Your task to perform on an android device: check data usage Image 0: 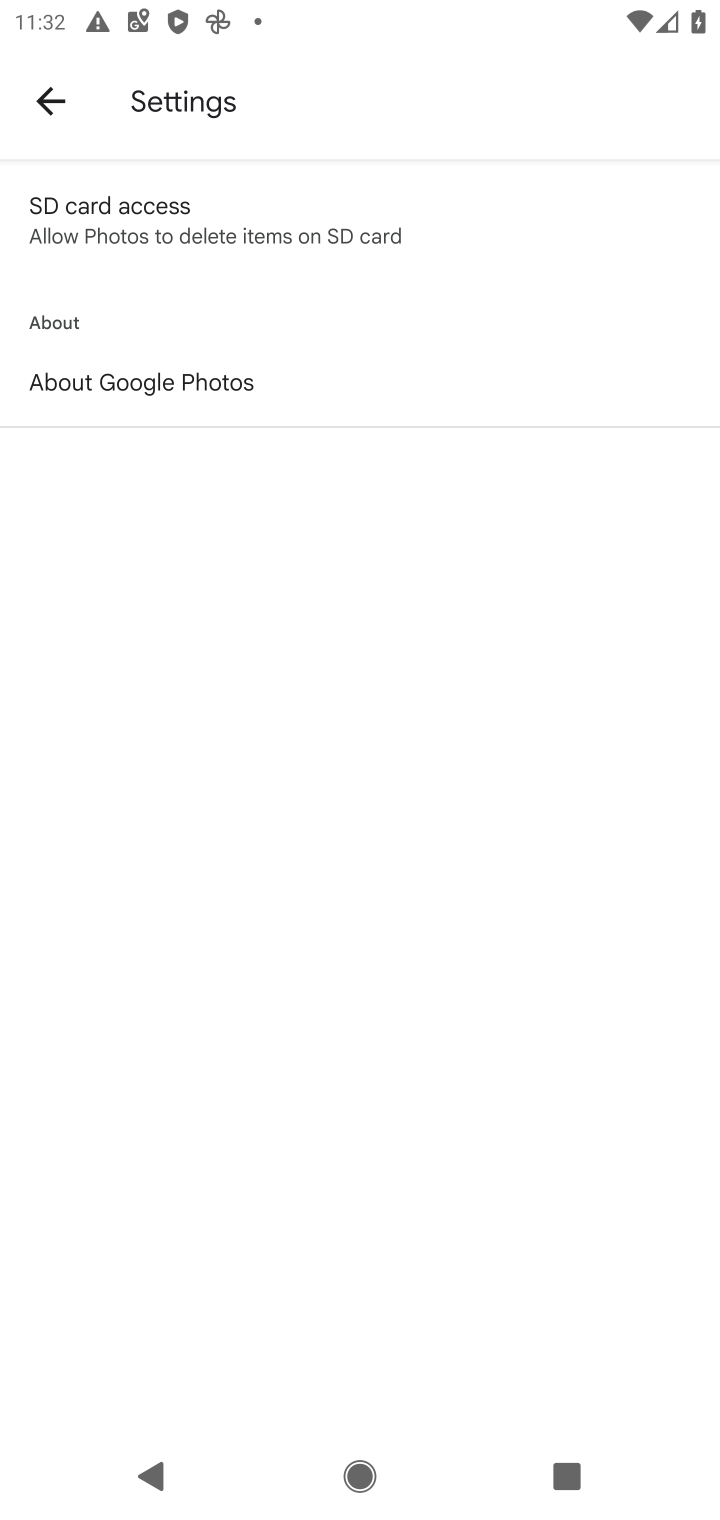
Step 0: press home button
Your task to perform on an android device: check data usage Image 1: 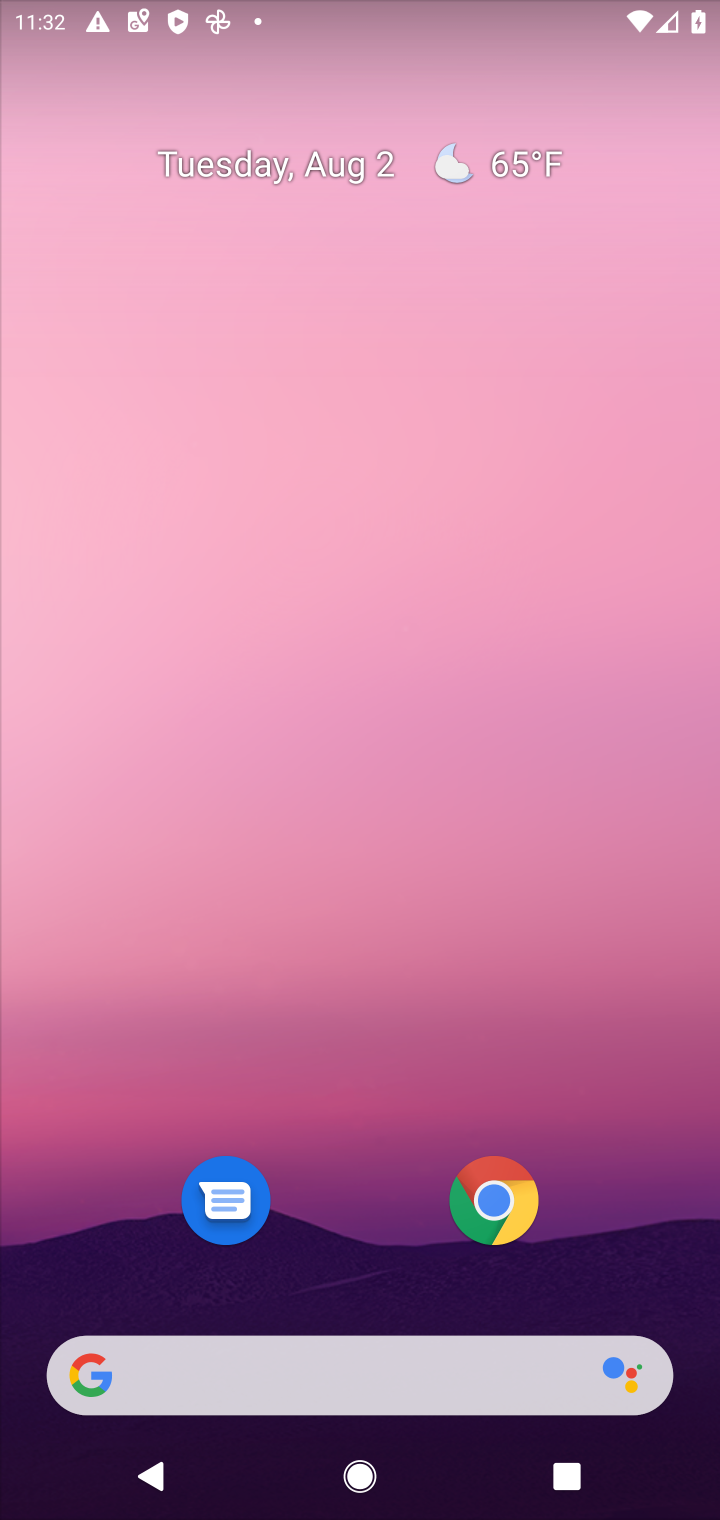
Step 1: drag from (693, 1324) to (570, 380)
Your task to perform on an android device: check data usage Image 2: 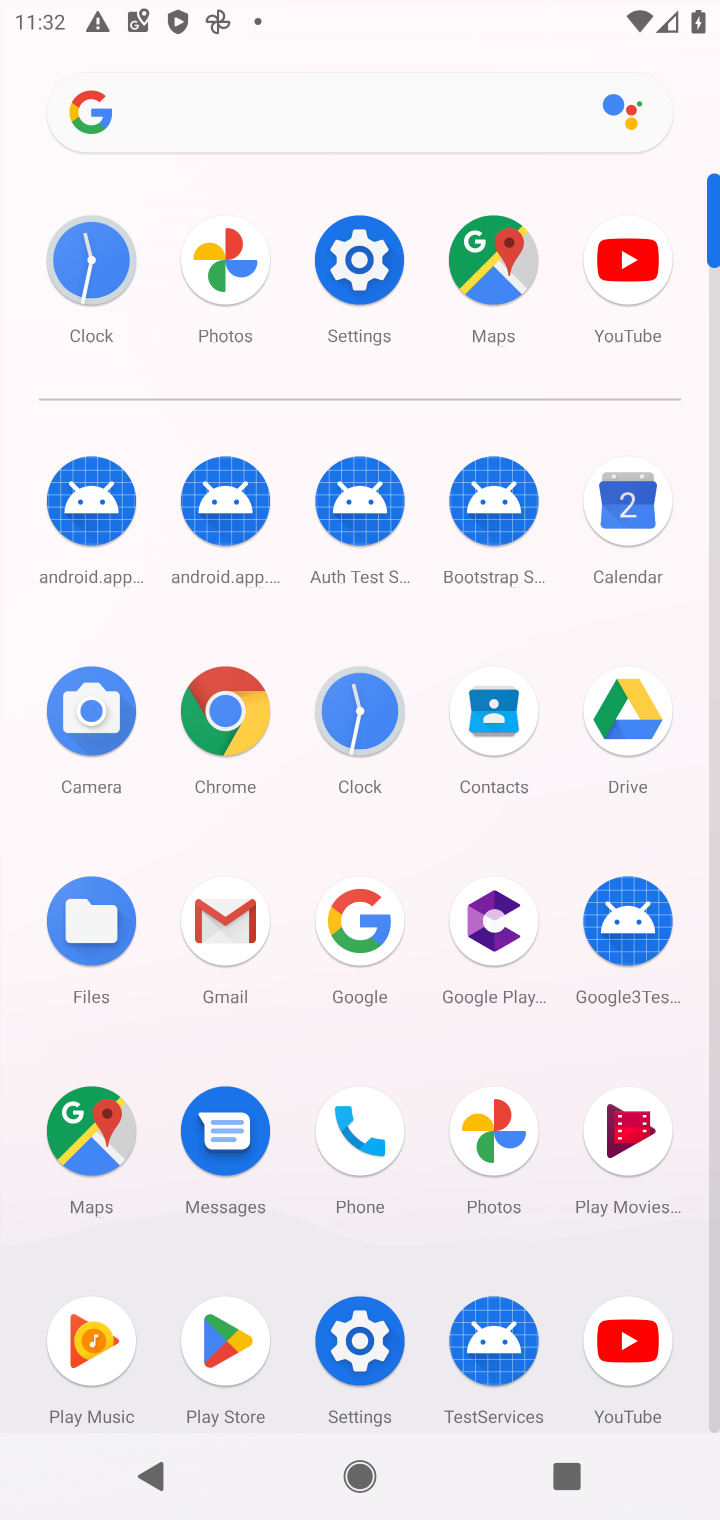
Step 2: click (361, 1341)
Your task to perform on an android device: check data usage Image 3: 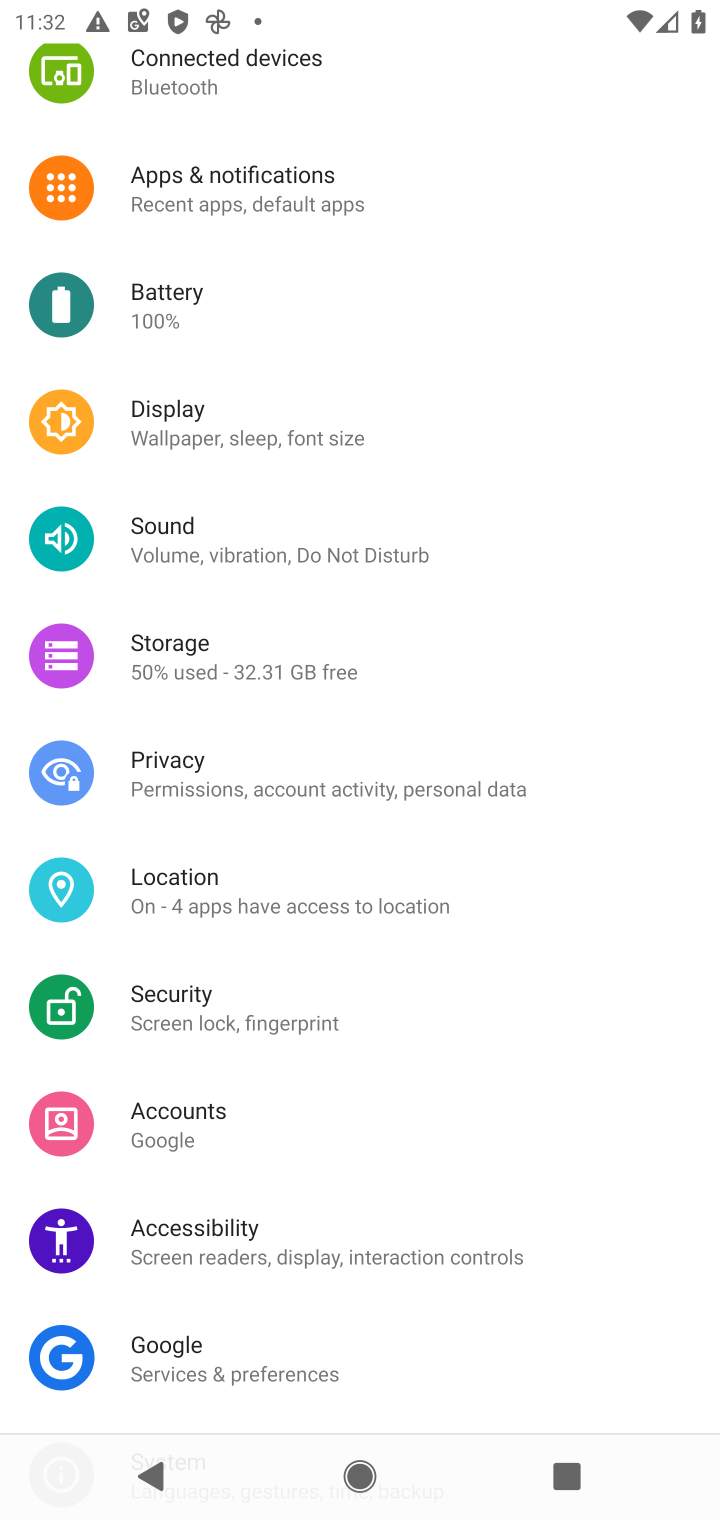
Step 3: drag from (602, 431) to (599, 1006)
Your task to perform on an android device: check data usage Image 4: 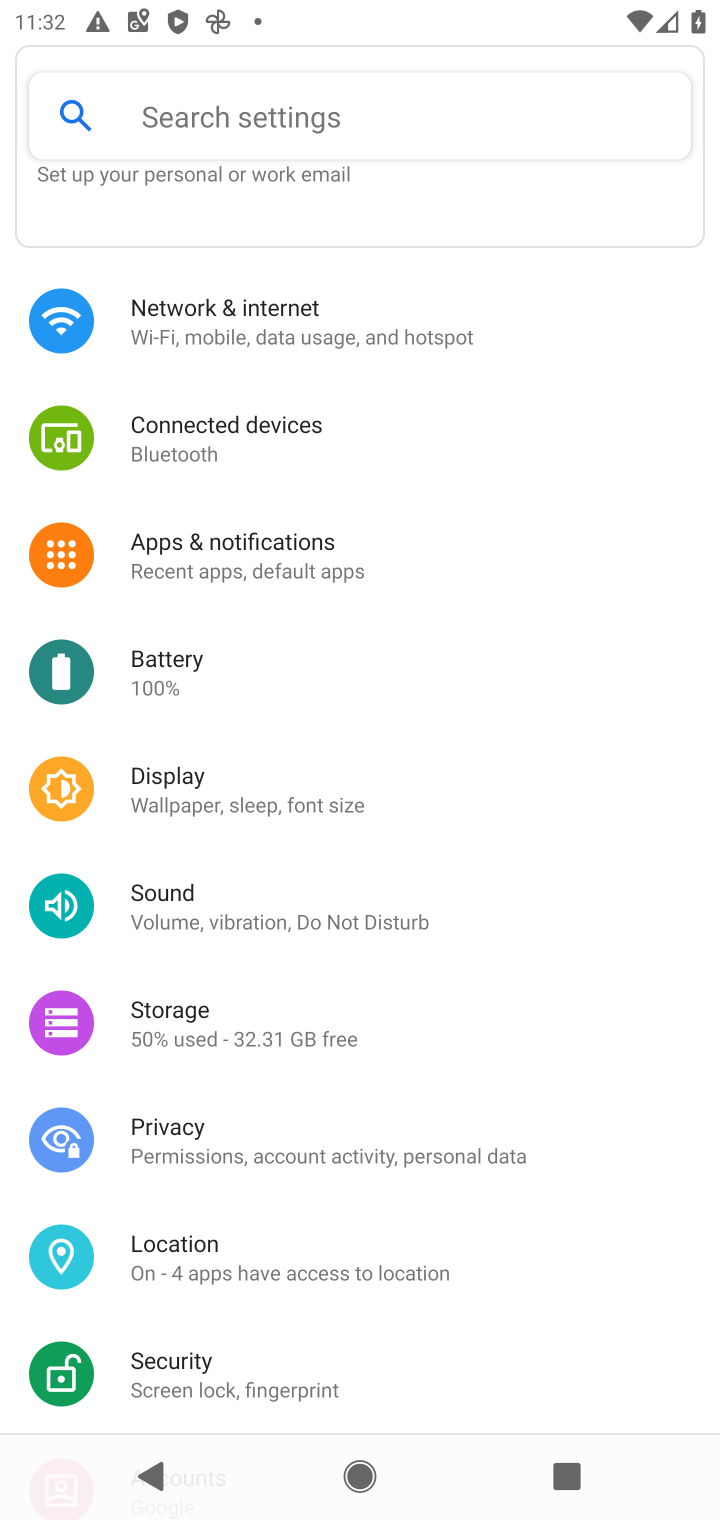
Step 4: click (171, 305)
Your task to perform on an android device: check data usage Image 5: 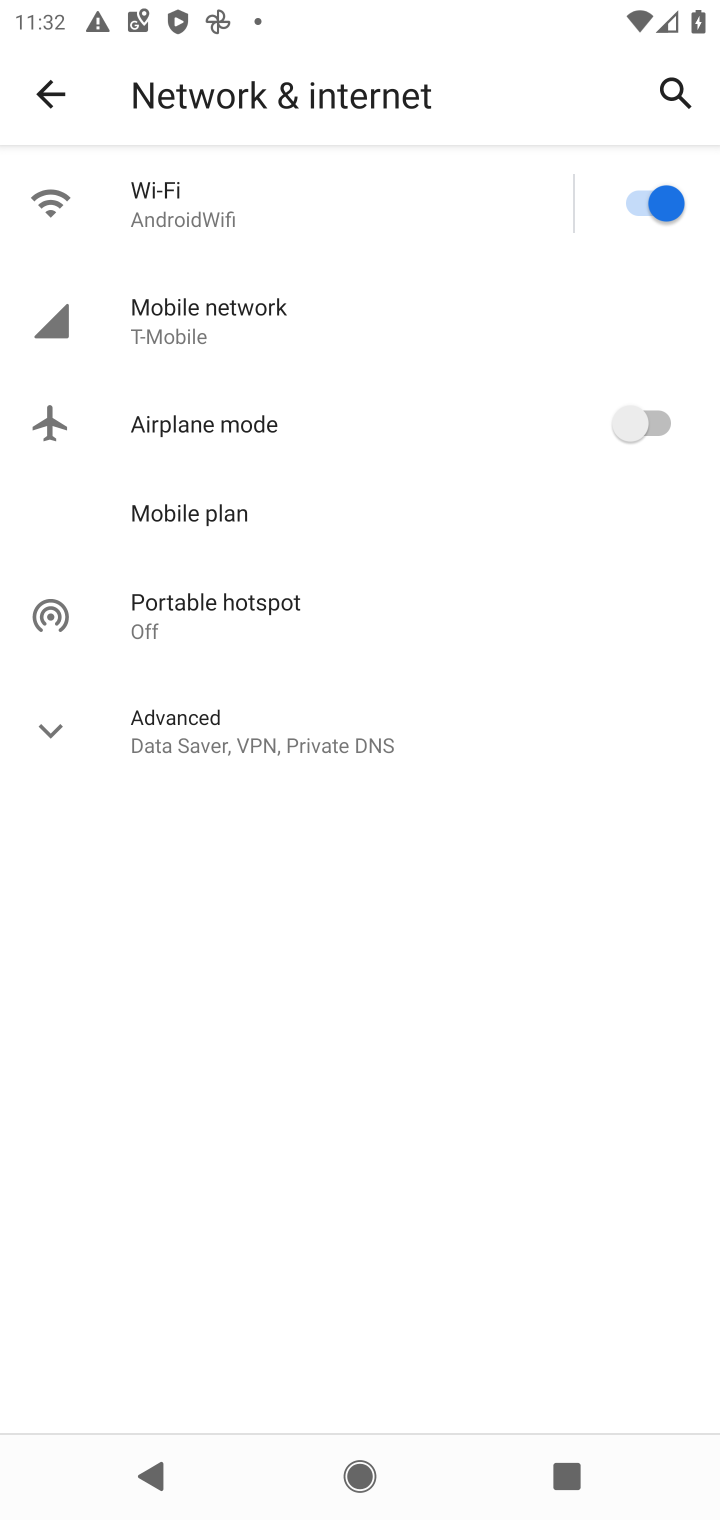
Step 5: click (201, 290)
Your task to perform on an android device: check data usage Image 6: 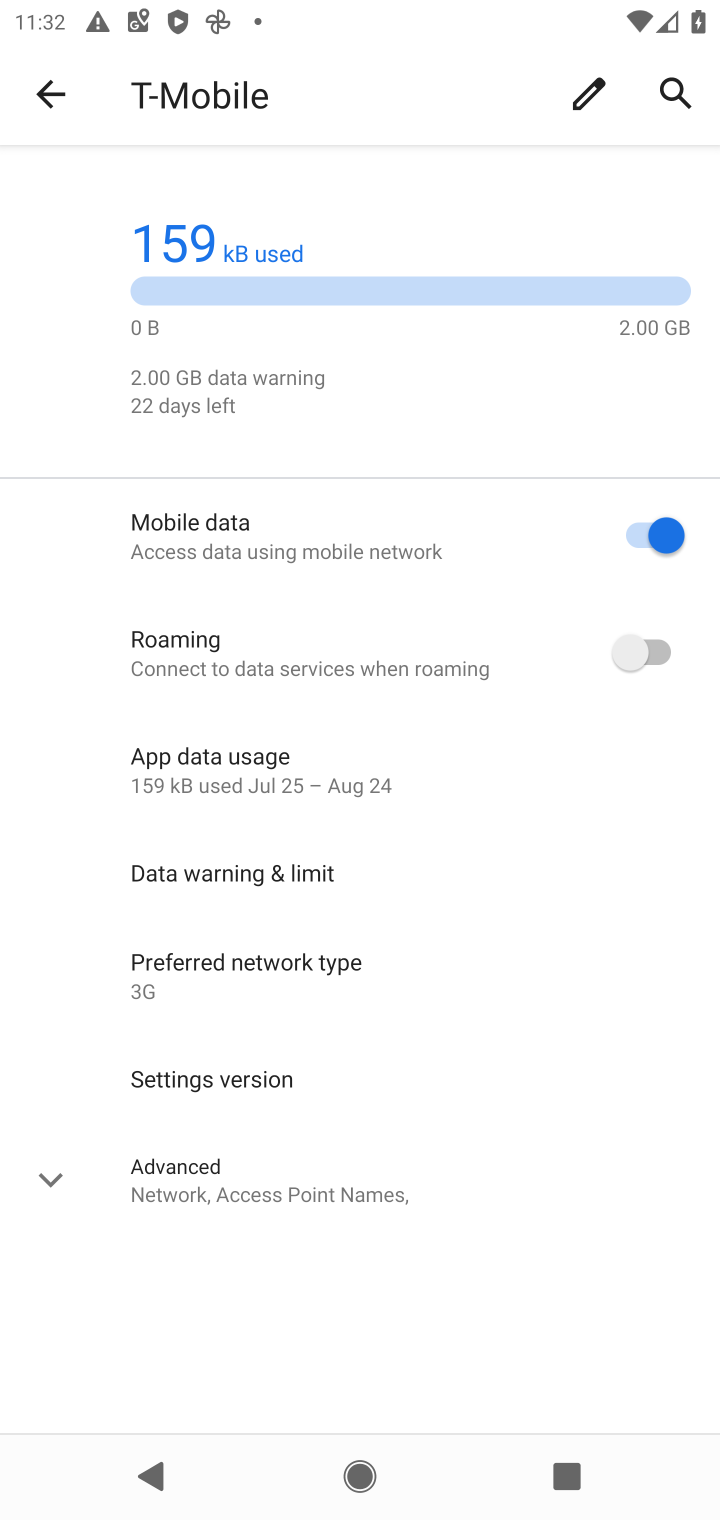
Step 6: task complete